Your task to perform on an android device: Turn off the flashlight Image 0: 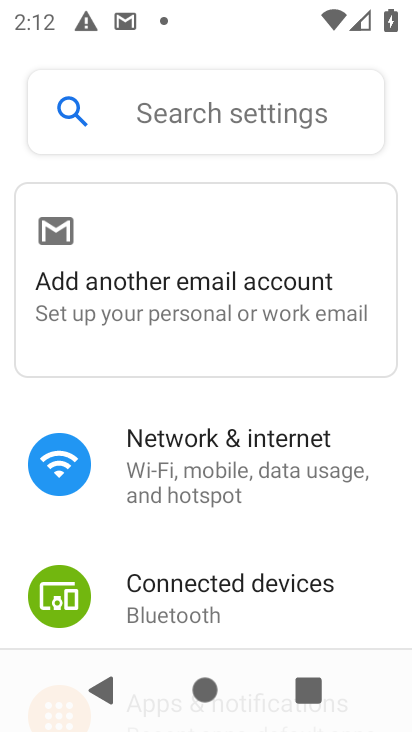
Step 0: click (244, 52)
Your task to perform on an android device: Turn off the flashlight Image 1: 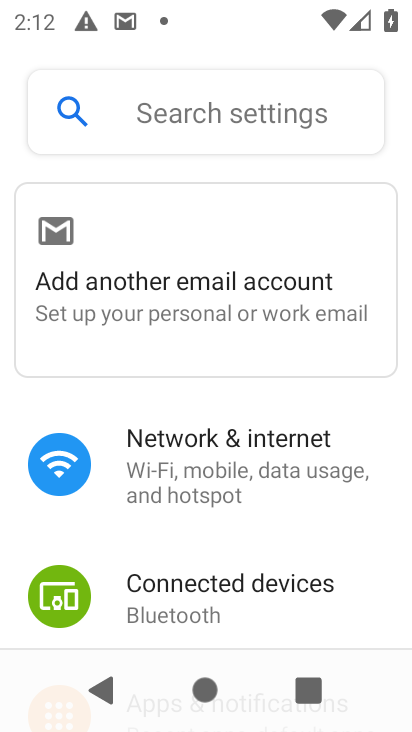
Step 1: task complete